Your task to perform on an android device: open a bookmark in the chrome app Image 0: 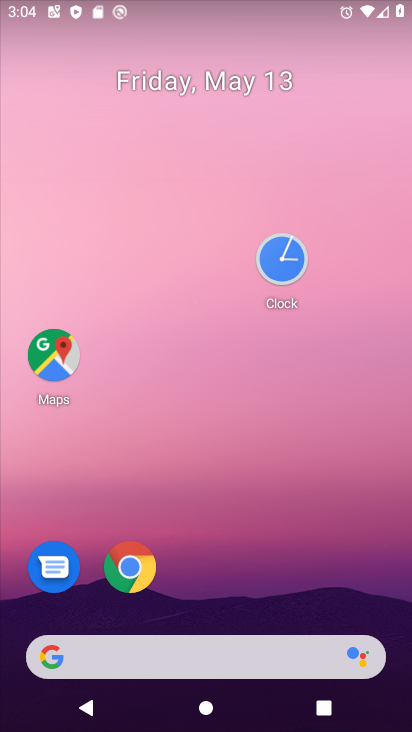
Step 0: click (140, 585)
Your task to perform on an android device: open a bookmark in the chrome app Image 1: 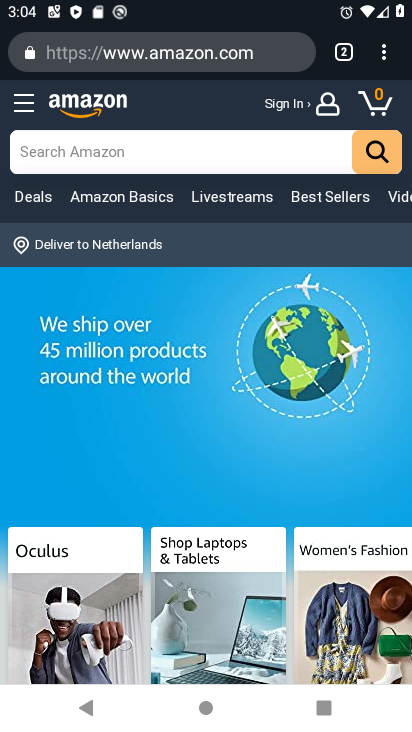
Step 1: click (348, 41)
Your task to perform on an android device: open a bookmark in the chrome app Image 2: 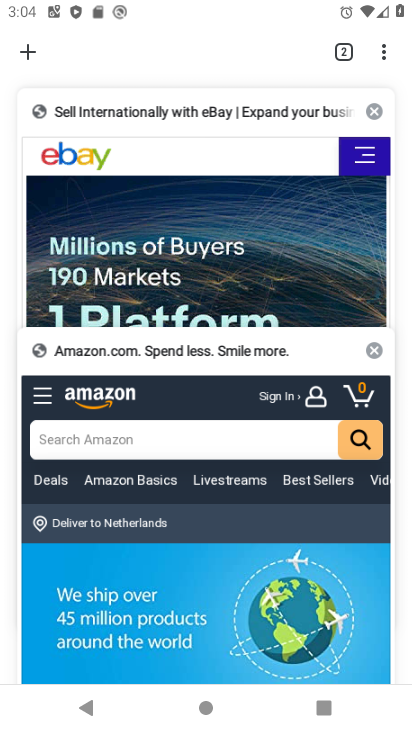
Step 2: click (33, 49)
Your task to perform on an android device: open a bookmark in the chrome app Image 3: 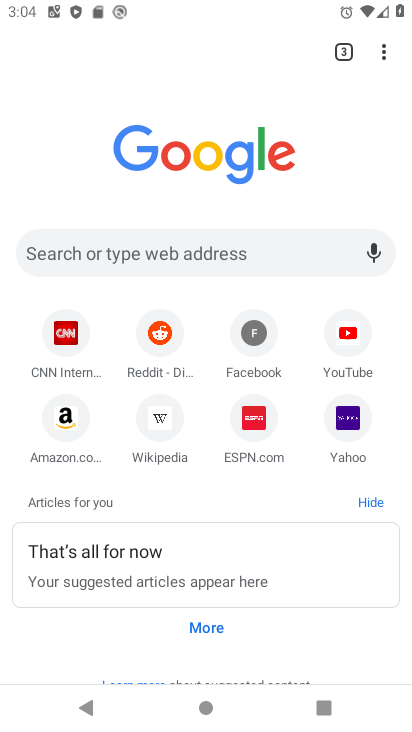
Step 3: click (158, 353)
Your task to perform on an android device: open a bookmark in the chrome app Image 4: 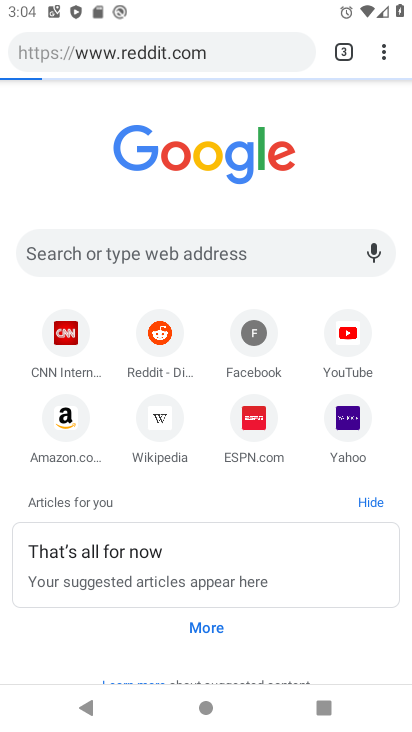
Step 4: task complete